Your task to perform on an android device: stop showing notifications on the lock screen Image 0: 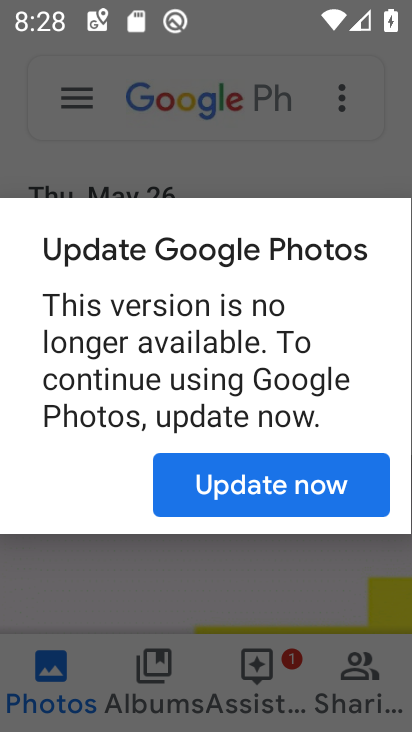
Step 0: press back button
Your task to perform on an android device: stop showing notifications on the lock screen Image 1: 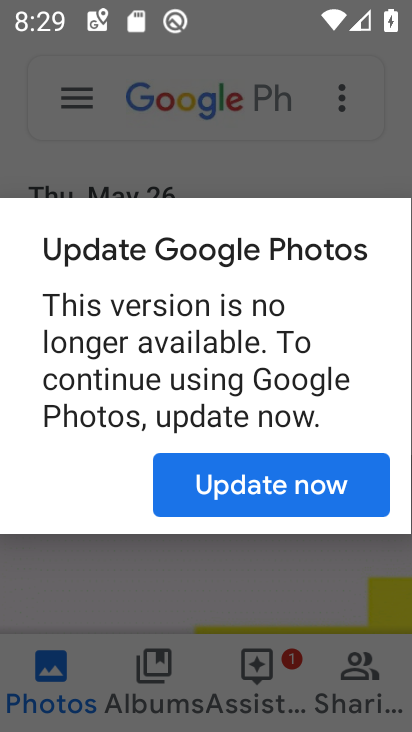
Step 1: press back button
Your task to perform on an android device: stop showing notifications on the lock screen Image 2: 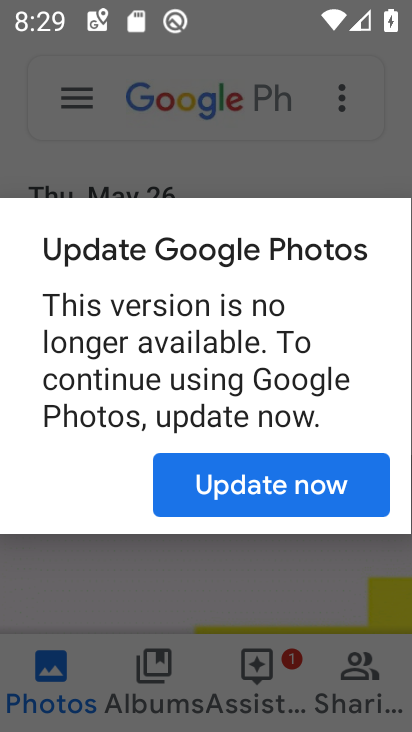
Step 2: press home button
Your task to perform on an android device: stop showing notifications on the lock screen Image 3: 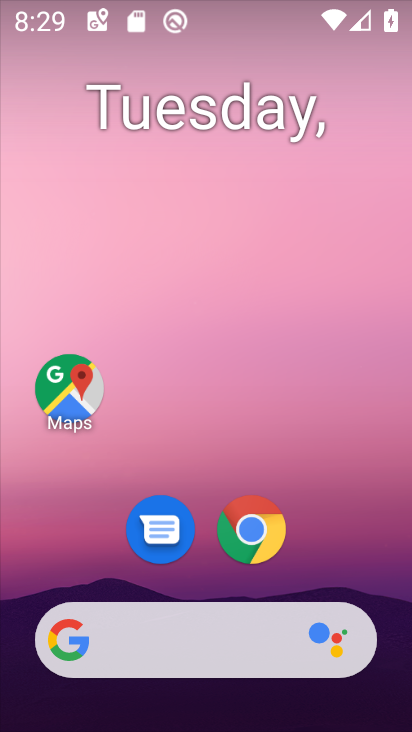
Step 3: drag from (178, 577) to (262, 67)
Your task to perform on an android device: stop showing notifications on the lock screen Image 4: 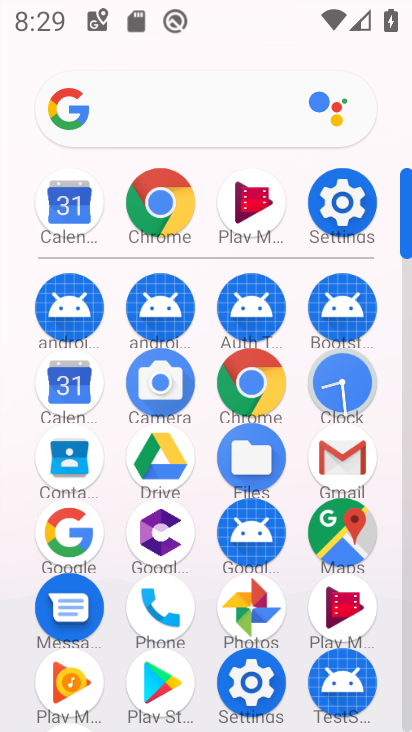
Step 4: click (334, 208)
Your task to perform on an android device: stop showing notifications on the lock screen Image 5: 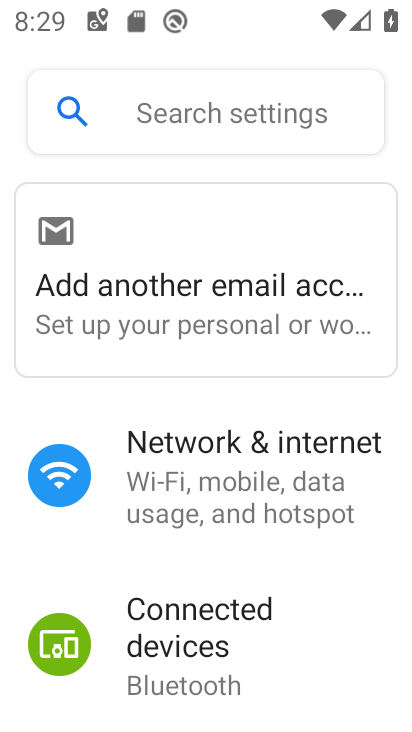
Step 5: drag from (159, 641) to (252, 358)
Your task to perform on an android device: stop showing notifications on the lock screen Image 6: 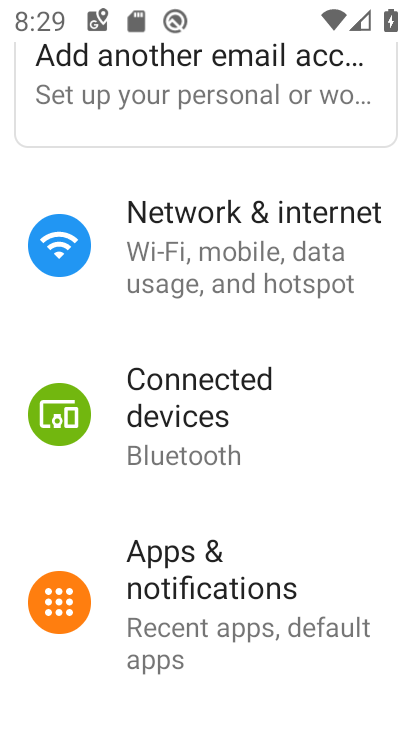
Step 6: click (205, 584)
Your task to perform on an android device: stop showing notifications on the lock screen Image 7: 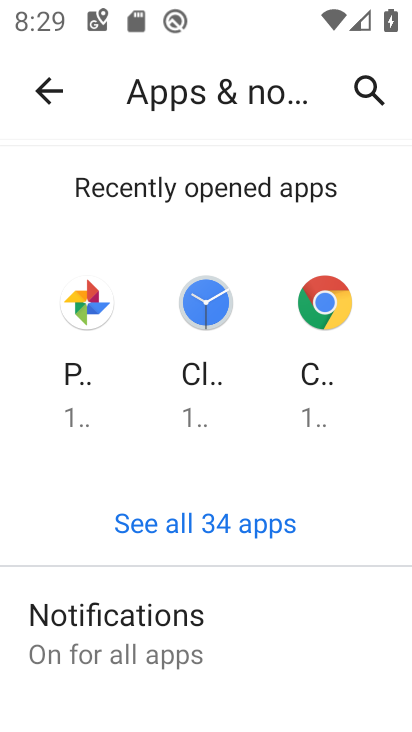
Step 7: drag from (157, 653) to (241, 243)
Your task to perform on an android device: stop showing notifications on the lock screen Image 8: 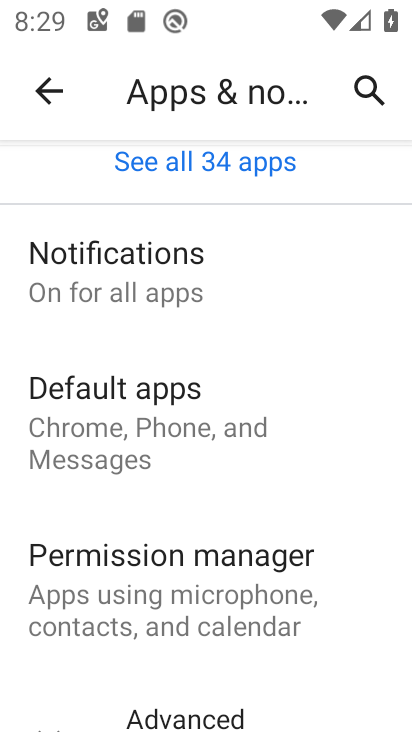
Step 8: click (107, 272)
Your task to perform on an android device: stop showing notifications on the lock screen Image 9: 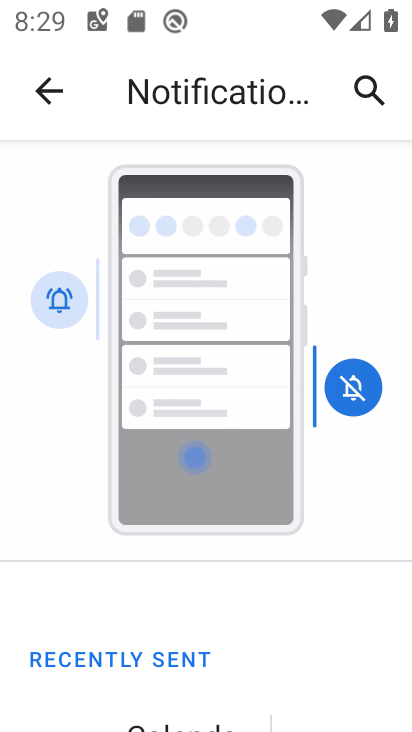
Step 9: drag from (192, 692) to (239, 127)
Your task to perform on an android device: stop showing notifications on the lock screen Image 10: 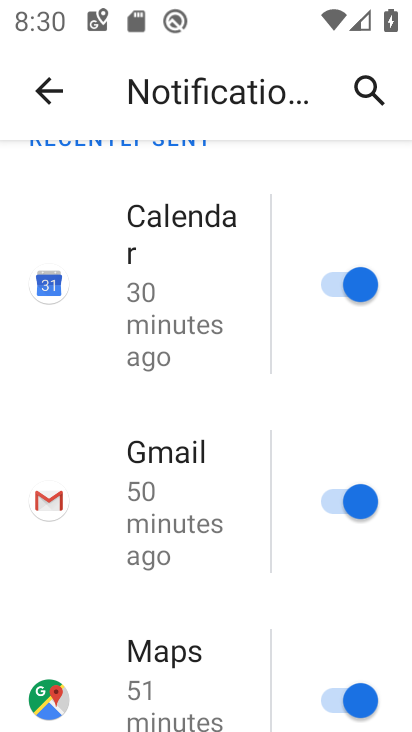
Step 10: drag from (205, 625) to (283, 107)
Your task to perform on an android device: stop showing notifications on the lock screen Image 11: 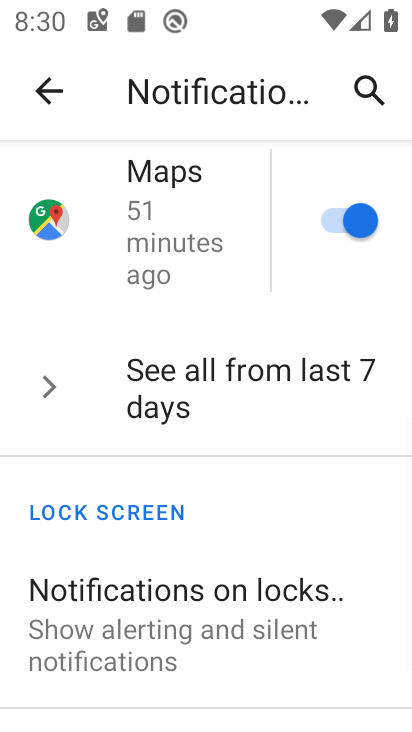
Step 11: drag from (174, 653) to (241, 163)
Your task to perform on an android device: stop showing notifications on the lock screen Image 12: 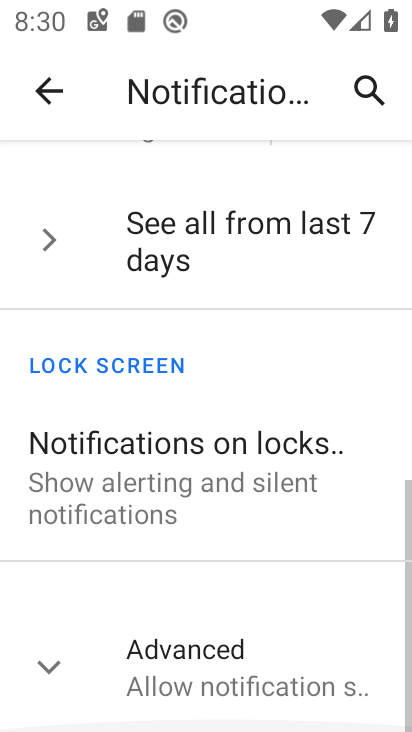
Step 12: click (178, 653)
Your task to perform on an android device: stop showing notifications on the lock screen Image 13: 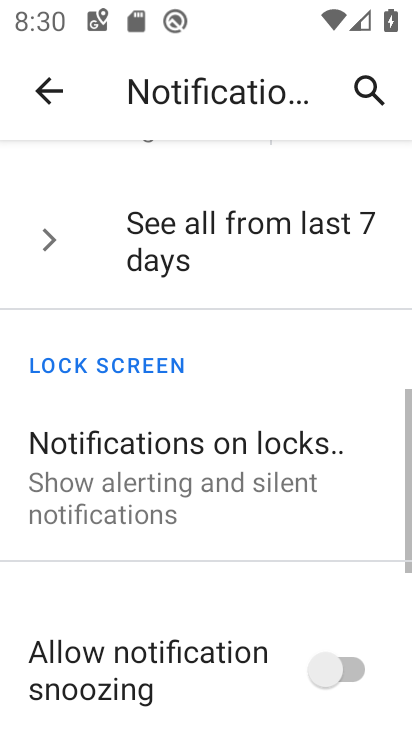
Step 13: drag from (197, 617) to (282, 207)
Your task to perform on an android device: stop showing notifications on the lock screen Image 14: 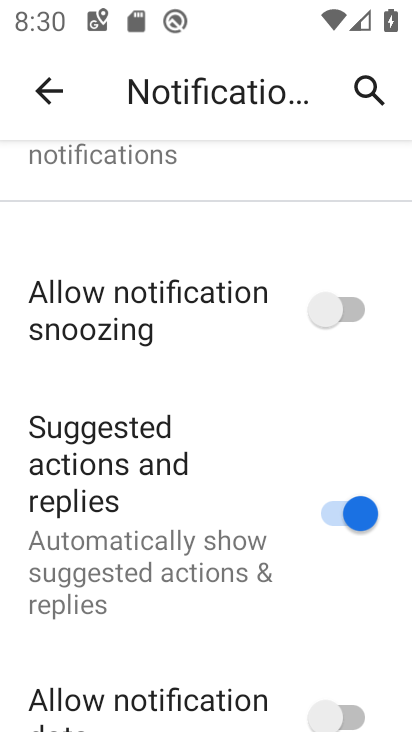
Step 14: drag from (187, 613) to (259, 76)
Your task to perform on an android device: stop showing notifications on the lock screen Image 15: 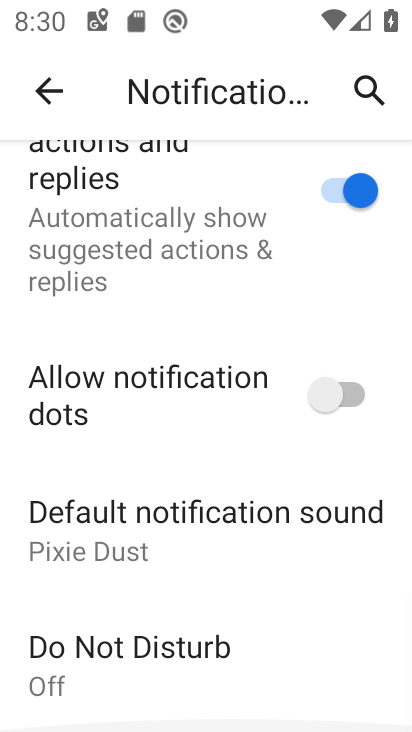
Step 15: drag from (254, 231) to (173, 713)
Your task to perform on an android device: stop showing notifications on the lock screen Image 16: 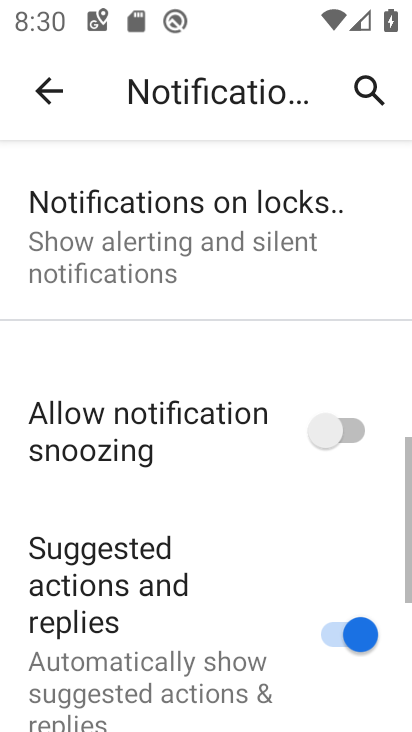
Step 16: drag from (216, 278) to (217, 497)
Your task to perform on an android device: stop showing notifications on the lock screen Image 17: 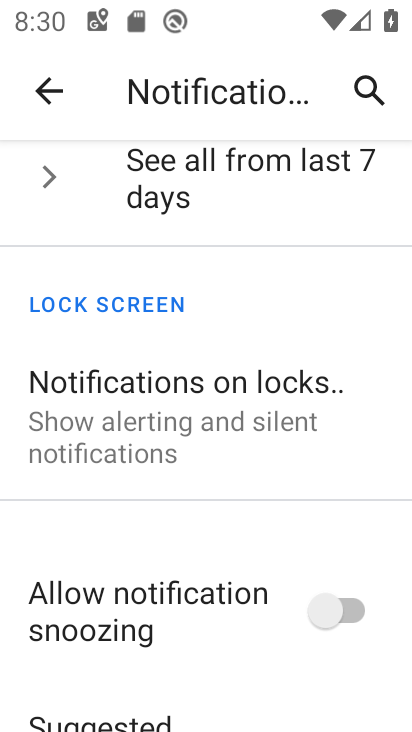
Step 17: click (154, 417)
Your task to perform on an android device: stop showing notifications on the lock screen Image 18: 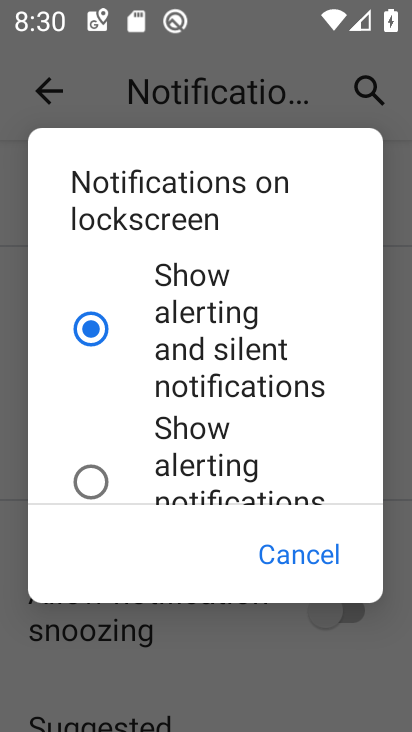
Step 18: drag from (254, 483) to (336, 0)
Your task to perform on an android device: stop showing notifications on the lock screen Image 19: 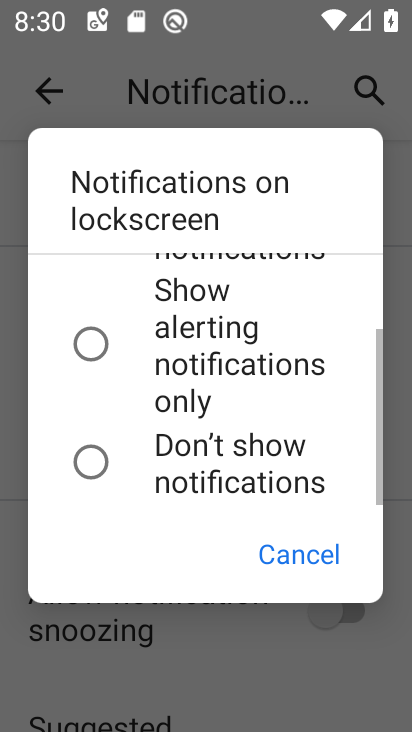
Step 19: click (87, 453)
Your task to perform on an android device: stop showing notifications on the lock screen Image 20: 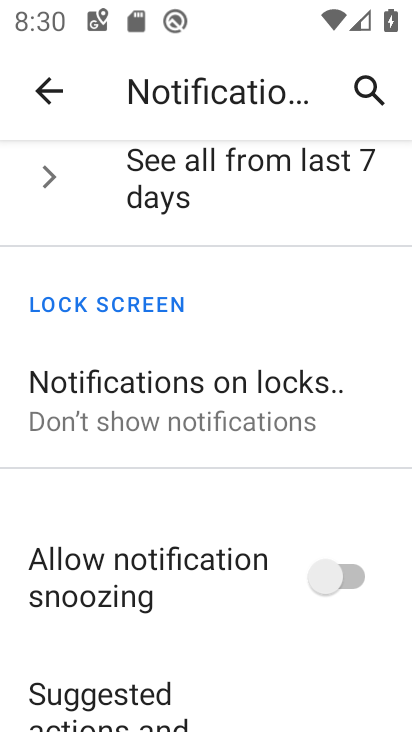
Step 20: task complete